Your task to perform on an android device: Open privacy settings Image 0: 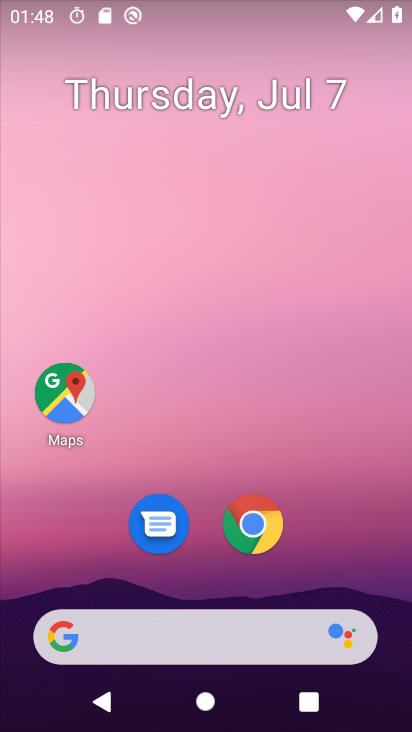
Step 0: drag from (270, 458) to (271, 36)
Your task to perform on an android device: Open privacy settings Image 1: 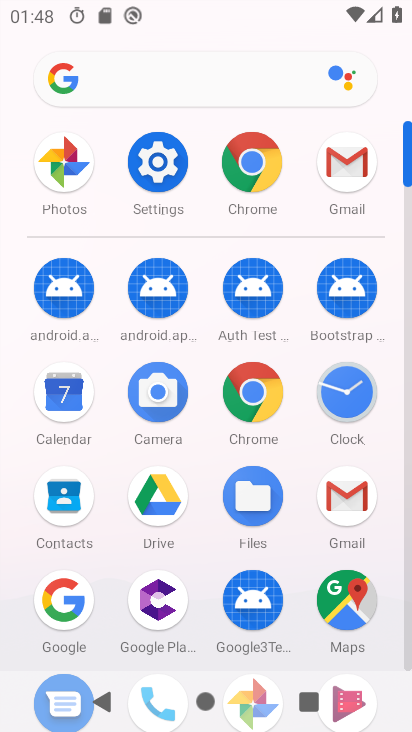
Step 1: click (155, 168)
Your task to perform on an android device: Open privacy settings Image 2: 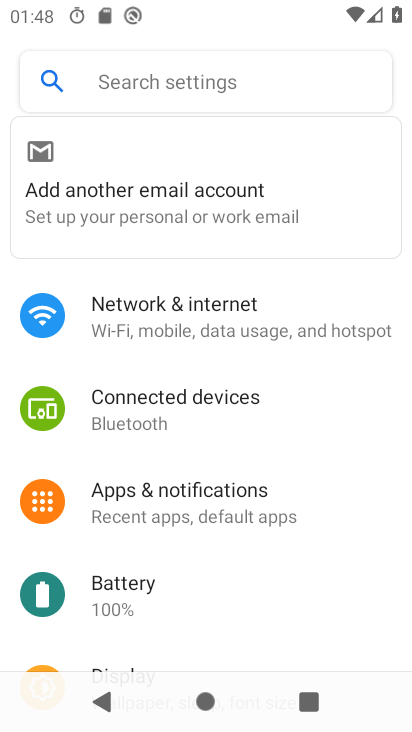
Step 2: drag from (198, 571) to (230, 52)
Your task to perform on an android device: Open privacy settings Image 3: 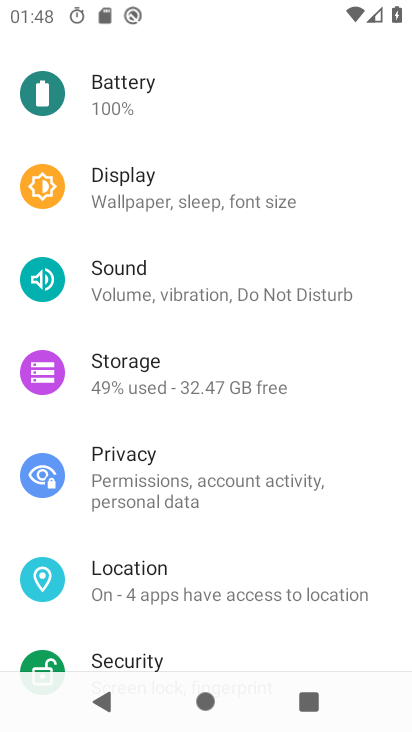
Step 3: click (228, 470)
Your task to perform on an android device: Open privacy settings Image 4: 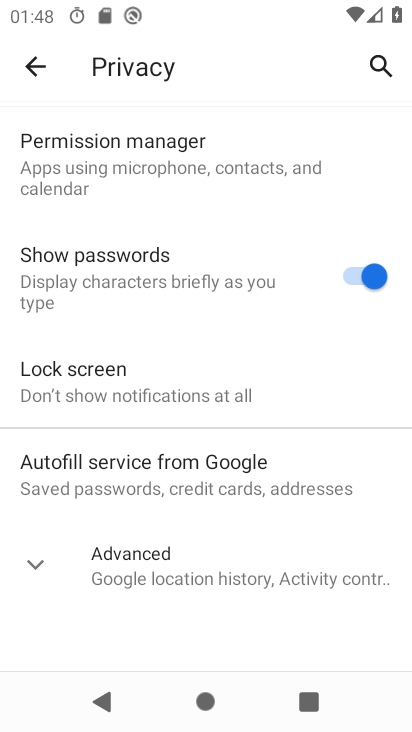
Step 4: task complete